Your task to perform on an android device: Search for sushi restaurants on Maps Image 0: 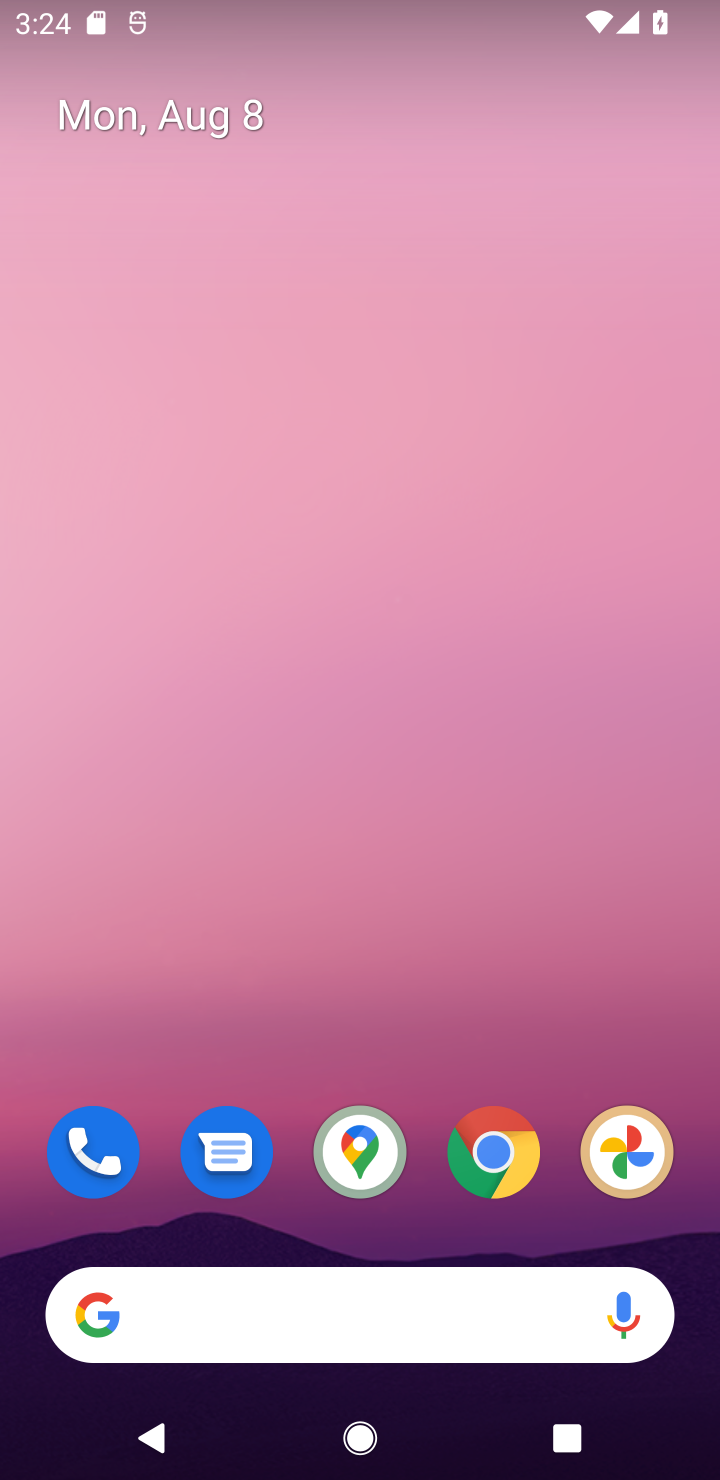
Step 0: click (335, 1110)
Your task to perform on an android device: Search for sushi restaurants on Maps Image 1: 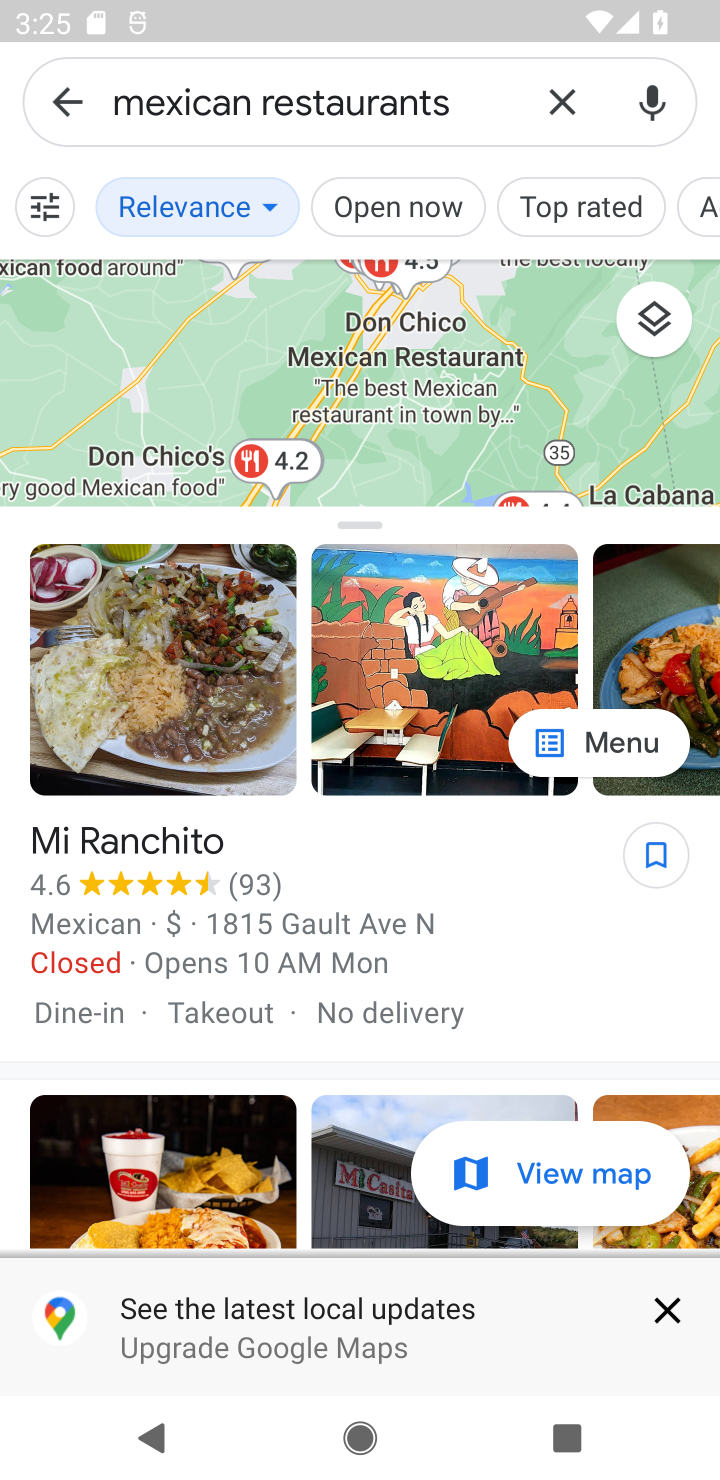
Step 1: click (536, 106)
Your task to perform on an android device: Search for sushi restaurants on Maps Image 2: 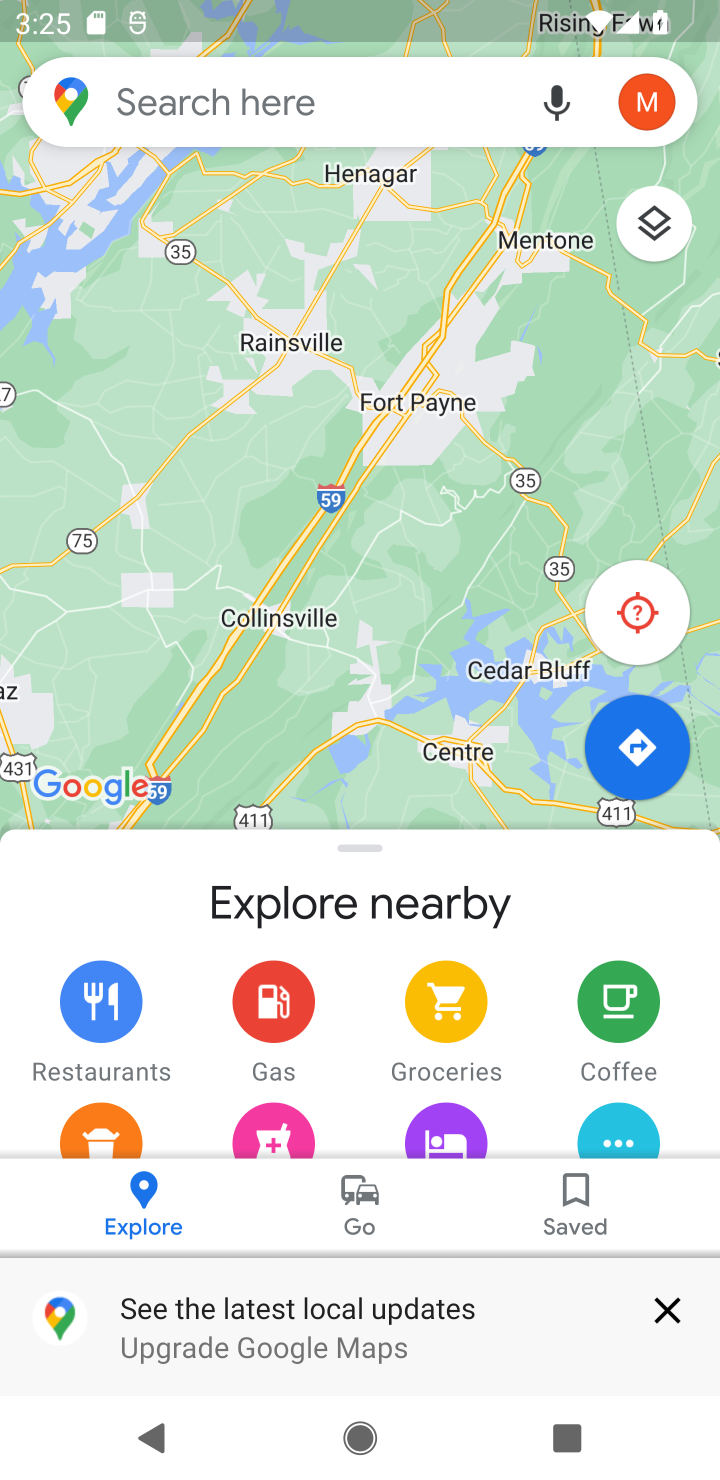
Step 2: click (222, 98)
Your task to perform on an android device: Search for sushi restaurants on Maps Image 3: 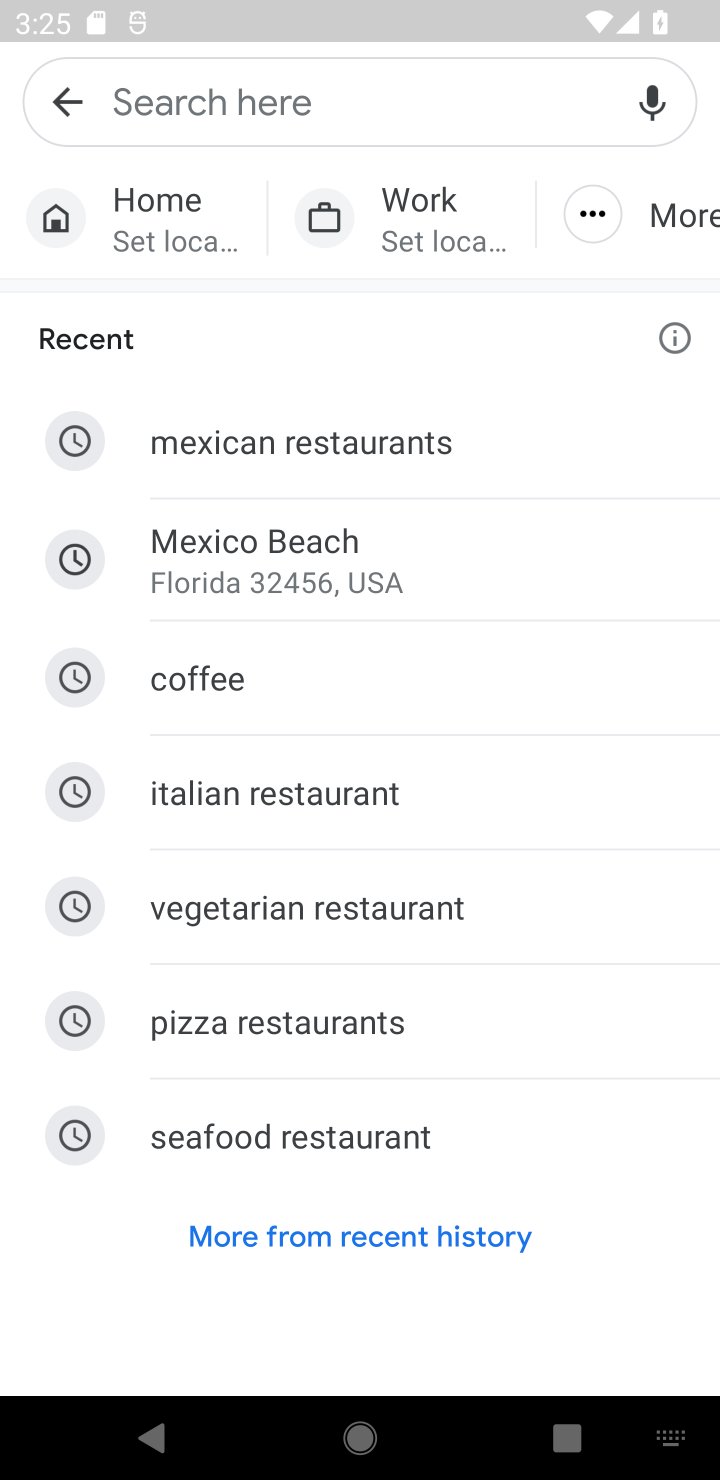
Step 3: click (222, 98)
Your task to perform on an android device: Search for sushi restaurants on Maps Image 4: 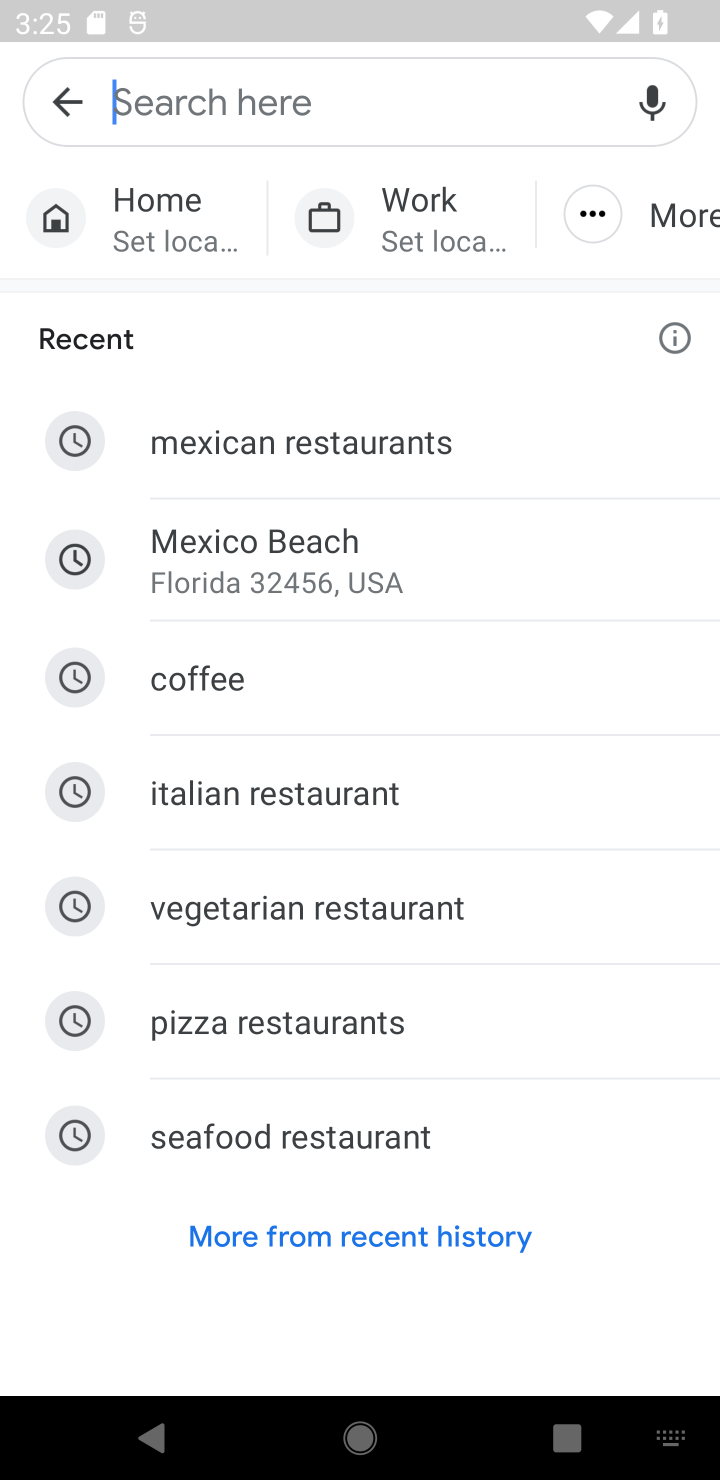
Step 4: type "sushi restaurants"
Your task to perform on an android device: Search for sushi restaurants on Maps Image 5: 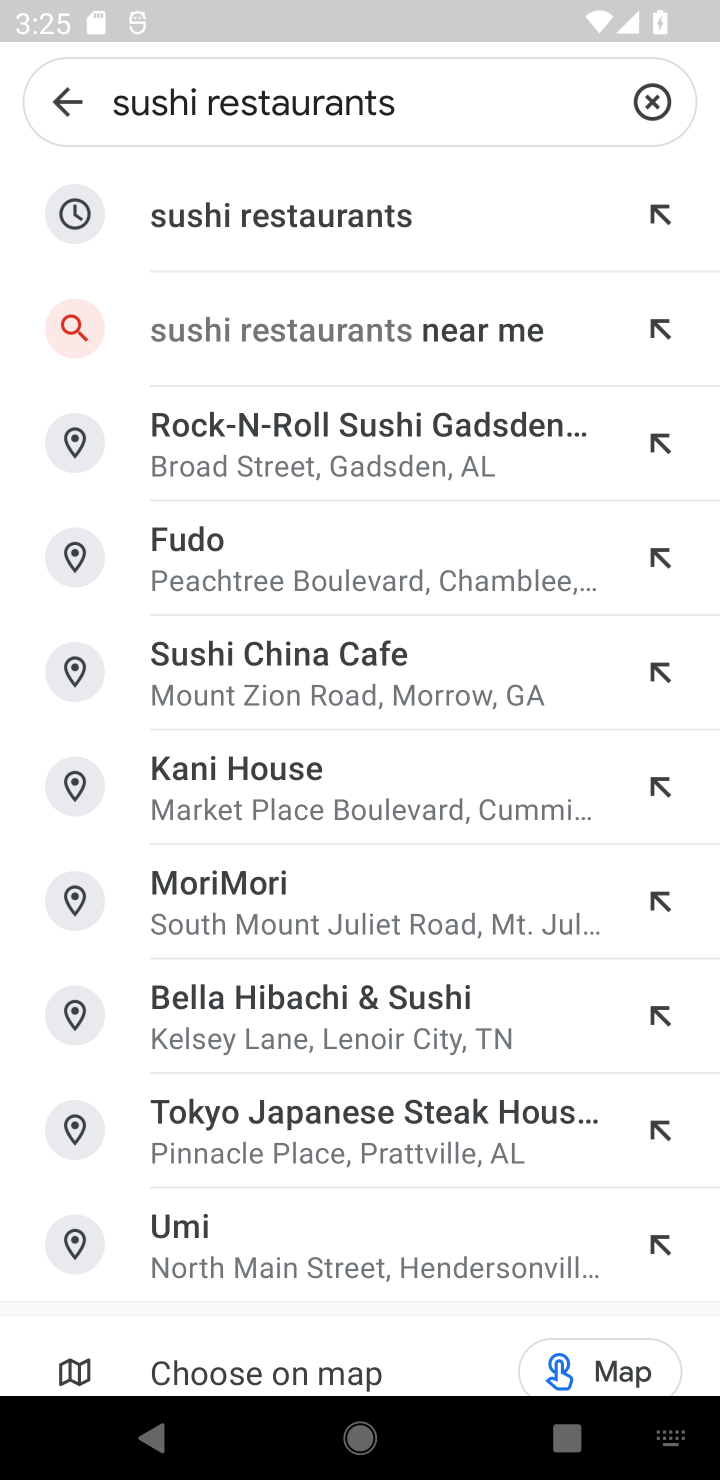
Step 5: click (343, 184)
Your task to perform on an android device: Search for sushi restaurants on Maps Image 6: 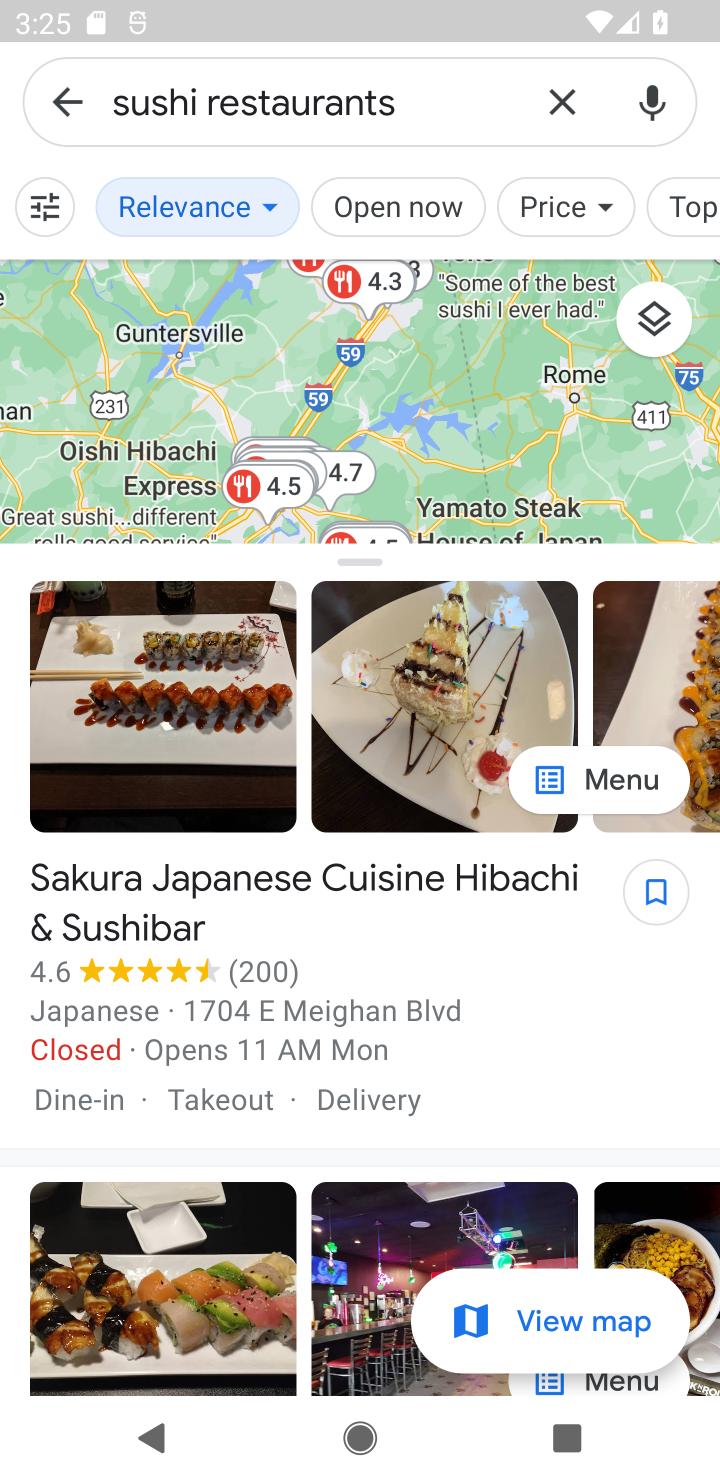
Step 6: task complete